Your task to perform on an android device: Search for "macbook pro 13 inch" on newegg, select the first entry, add it to the cart, then select checkout. Image 0: 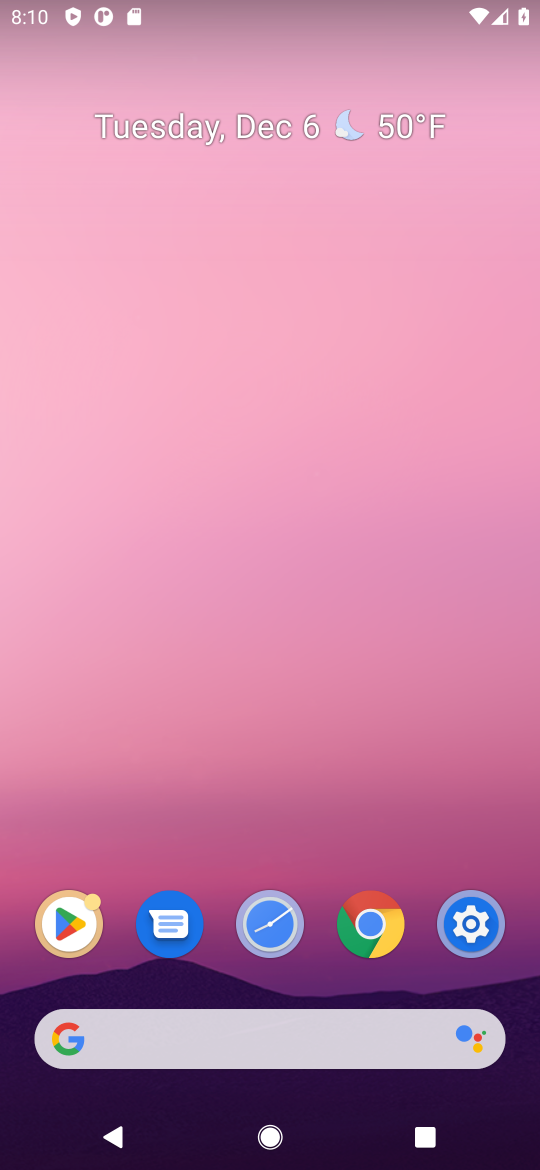
Step 0: click (323, 1027)
Your task to perform on an android device: Search for "macbook pro 13 inch" on newegg, select the first entry, add it to the cart, then select checkout. Image 1: 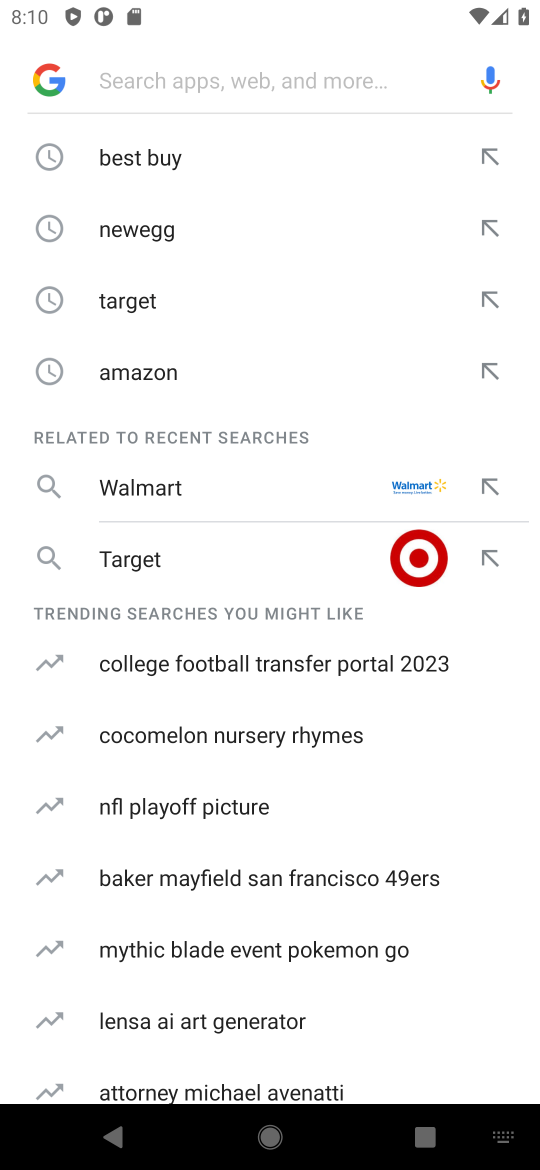
Step 1: click (134, 243)
Your task to perform on an android device: Search for "macbook pro 13 inch" on newegg, select the first entry, add it to the cart, then select checkout. Image 2: 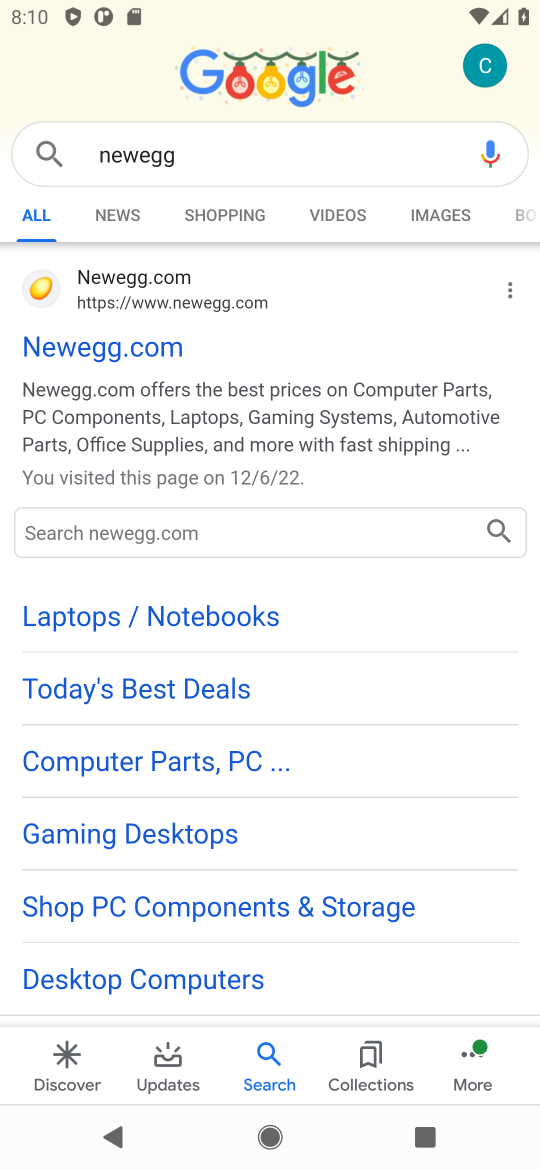
Step 2: click (80, 364)
Your task to perform on an android device: Search for "macbook pro 13 inch" on newegg, select the first entry, add it to the cart, then select checkout. Image 3: 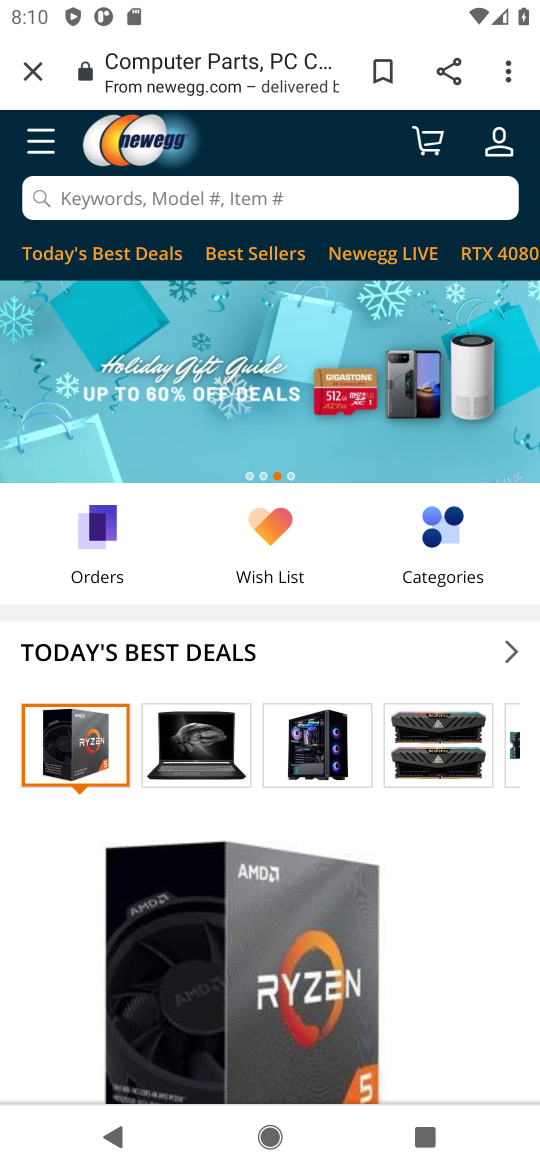
Step 3: task complete